Your task to perform on an android device: Turn on the flashlight Image 0: 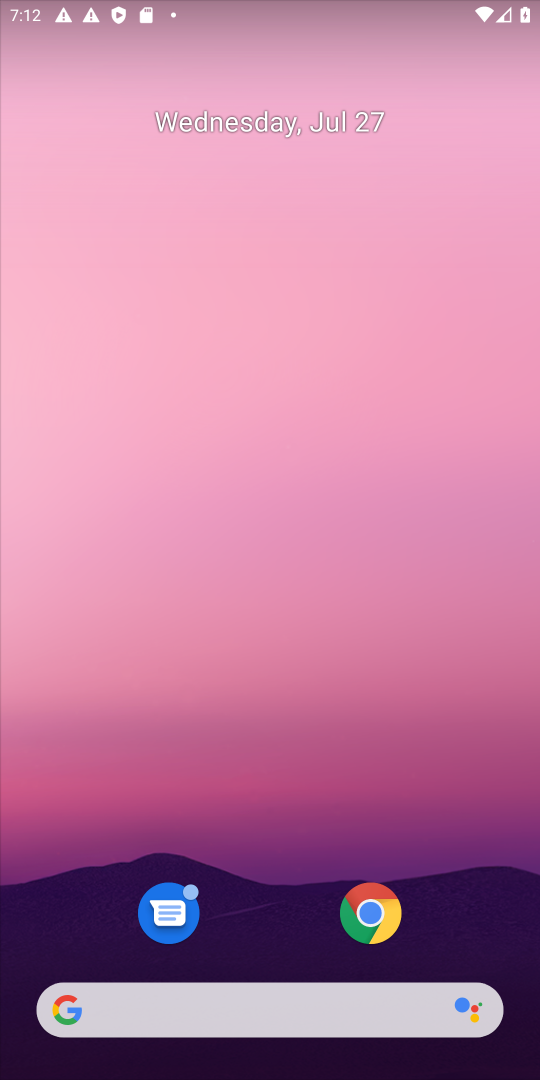
Step 0: drag from (380, 78) to (410, 986)
Your task to perform on an android device: Turn on the flashlight Image 1: 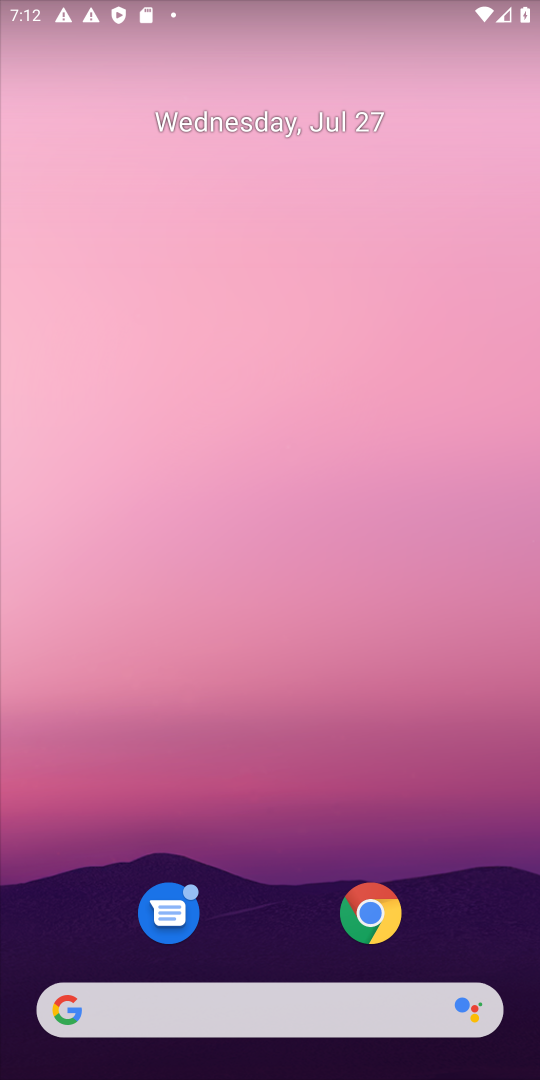
Step 1: task complete